Your task to perform on an android device: turn on data saver in the chrome app Image 0: 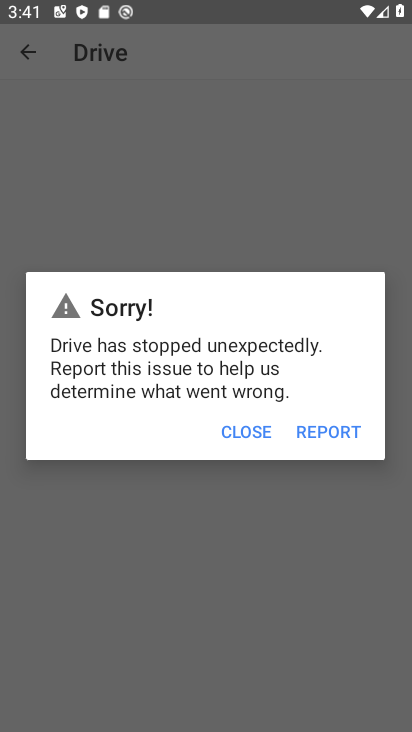
Step 0: press home button
Your task to perform on an android device: turn on data saver in the chrome app Image 1: 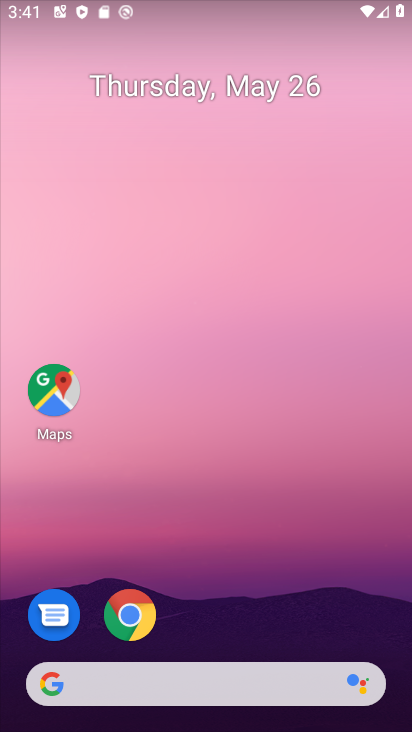
Step 1: click (143, 603)
Your task to perform on an android device: turn on data saver in the chrome app Image 2: 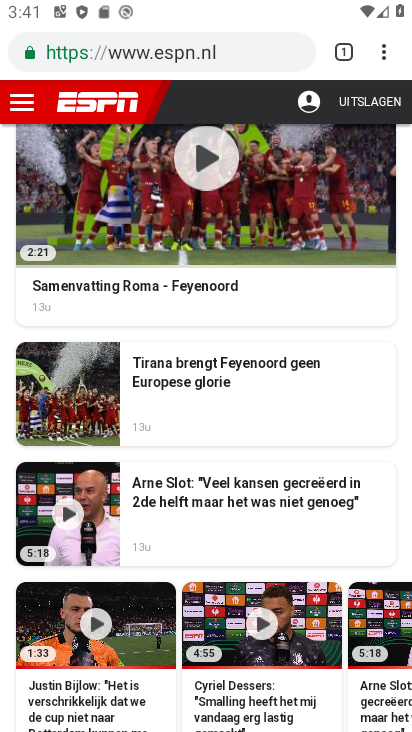
Step 2: click (377, 54)
Your task to perform on an android device: turn on data saver in the chrome app Image 3: 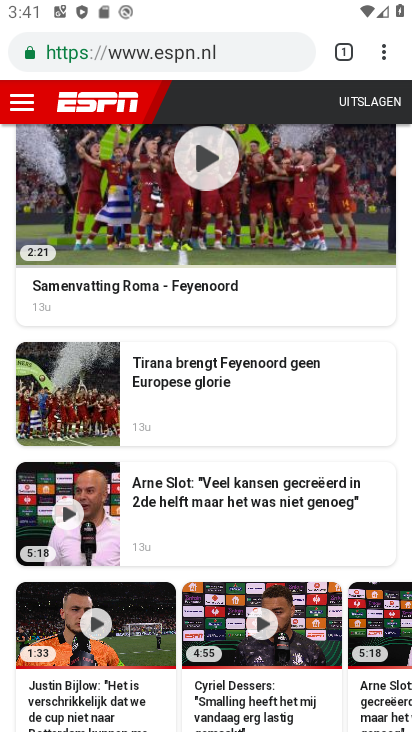
Step 3: click (383, 49)
Your task to perform on an android device: turn on data saver in the chrome app Image 4: 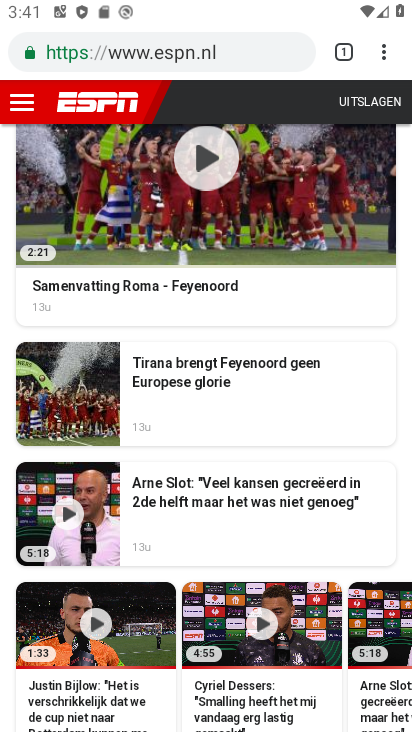
Step 4: click (380, 60)
Your task to perform on an android device: turn on data saver in the chrome app Image 5: 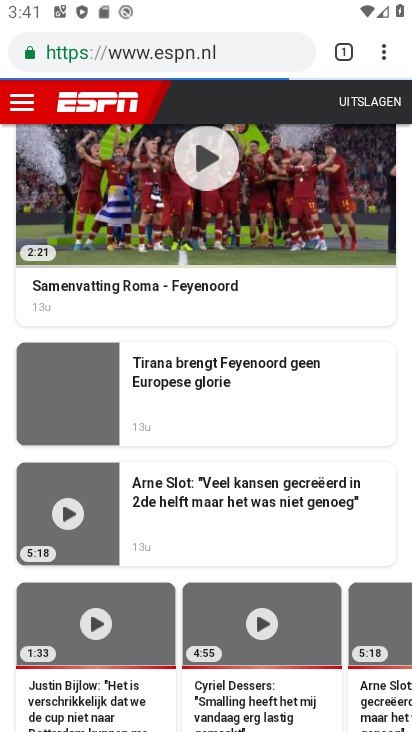
Step 5: click (387, 61)
Your task to perform on an android device: turn on data saver in the chrome app Image 6: 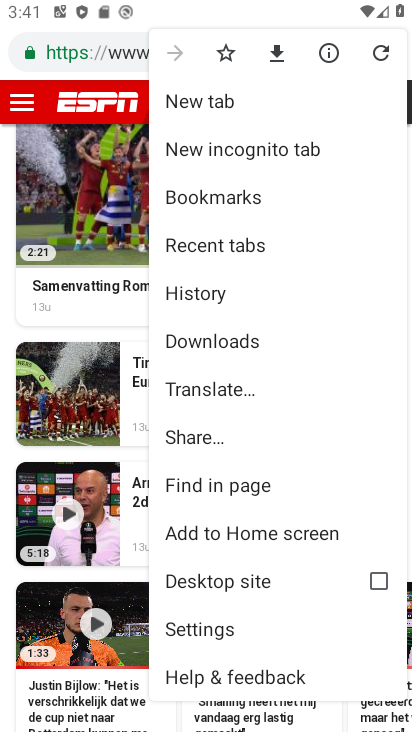
Step 6: click (217, 632)
Your task to perform on an android device: turn on data saver in the chrome app Image 7: 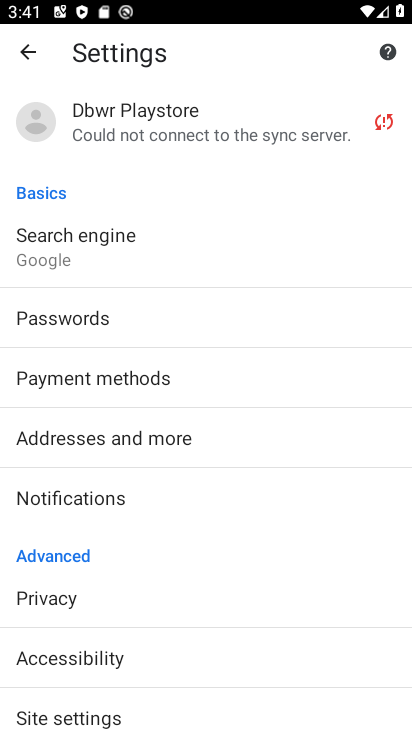
Step 7: drag from (126, 642) to (106, 375)
Your task to perform on an android device: turn on data saver in the chrome app Image 8: 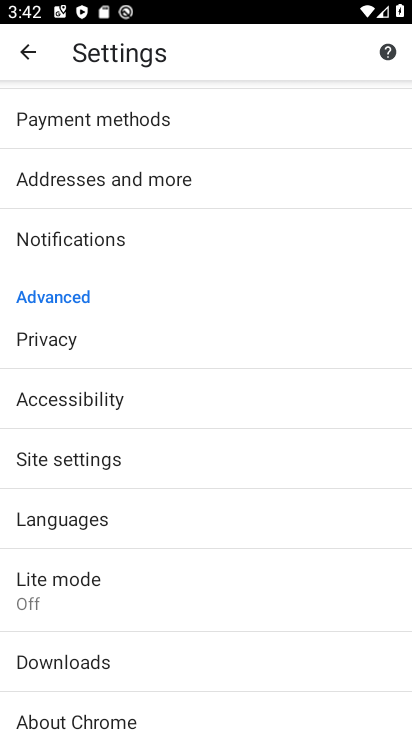
Step 8: click (77, 594)
Your task to perform on an android device: turn on data saver in the chrome app Image 9: 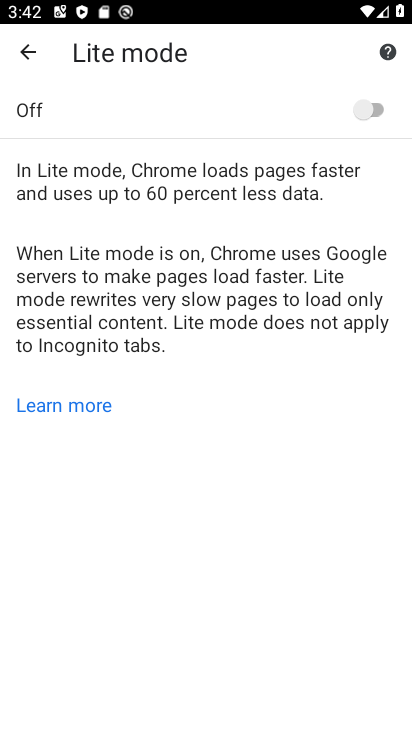
Step 9: click (360, 108)
Your task to perform on an android device: turn on data saver in the chrome app Image 10: 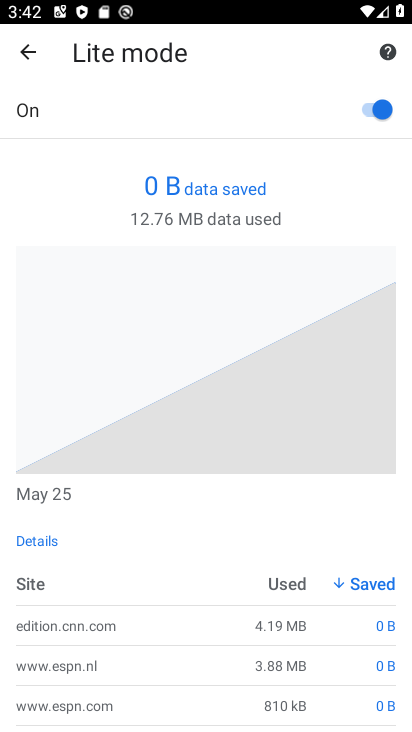
Step 10: task complete